Your task to perform on an android device: add a contact in the contacts app Image 0: 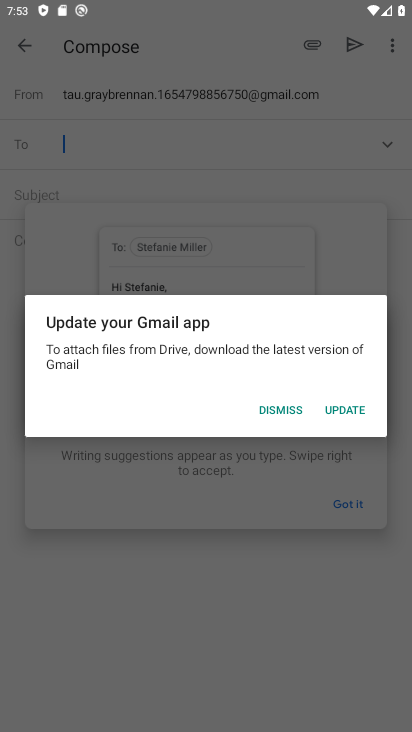
Step 0: click (343, 404)
Your task to perform on an android device: add a contact in the contacts app Image 1: 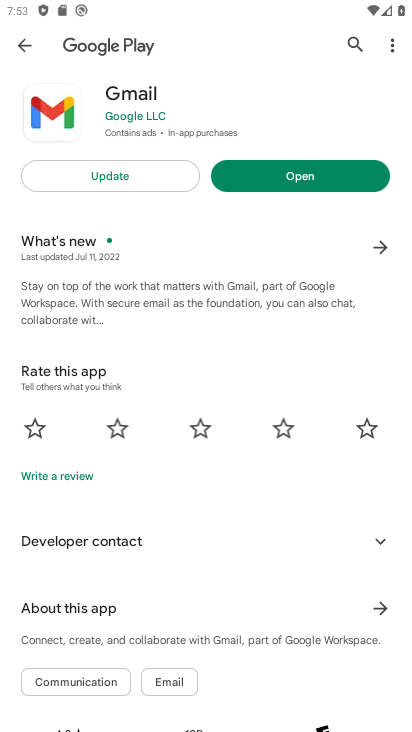
Step 1: click (263, 222)
Your task to perform on an android device: add a contact in the contacts app Image 2: 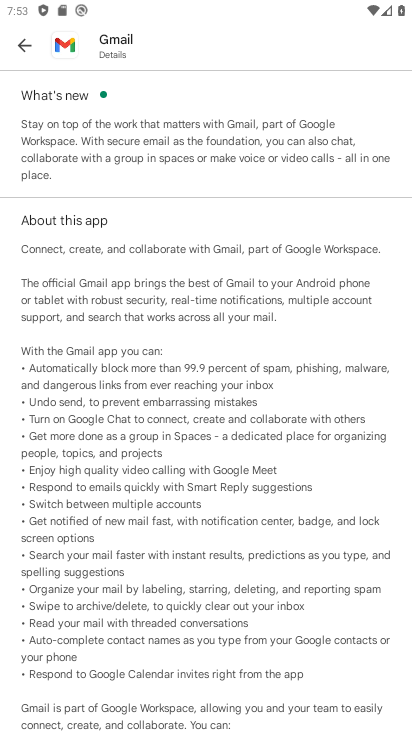
Step 2: press home button
Your task to perform on an android device: add a contact in the contacts app Image 3: 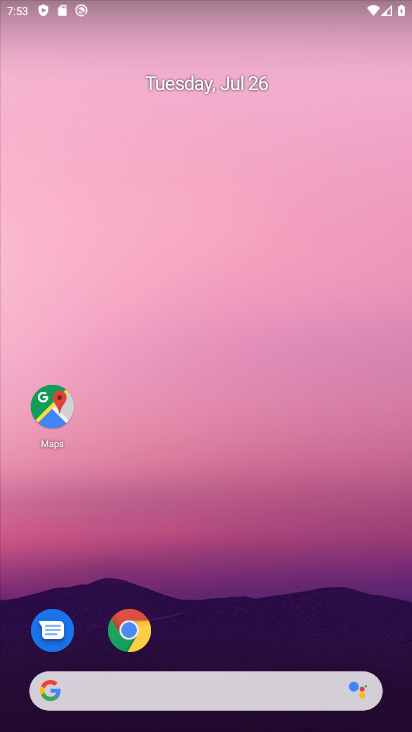
Step 3: drag from (328, 621) to (143, 128)
Your task to perform on an android device: add a contact in the contacts app Image 4: 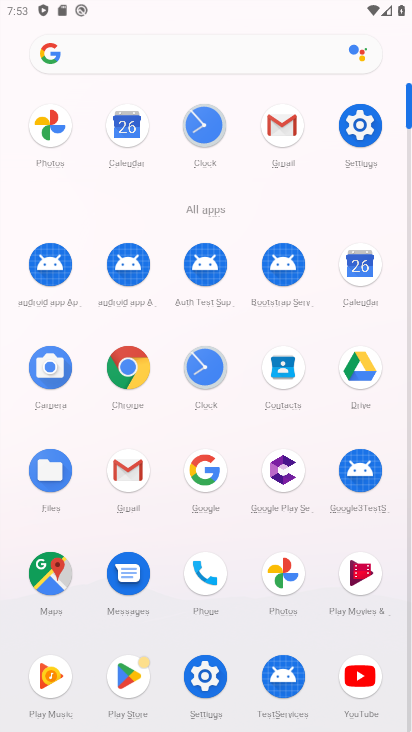
Step 4: click (283, 366)
Your task to perform on an android device: add a contact in the contacts app Image 5: 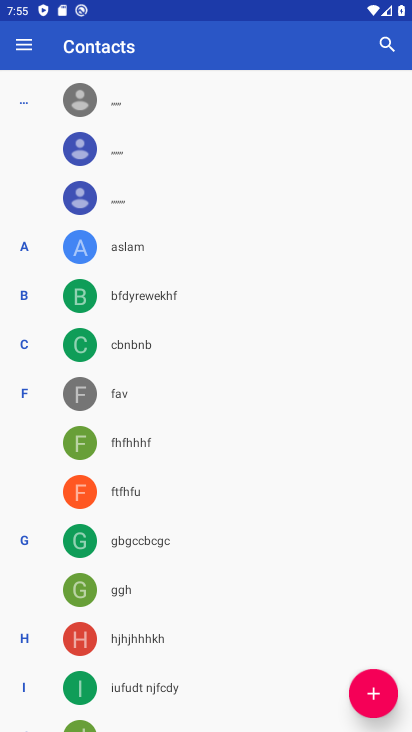
Step 5: click (375, 685)
Your task to perform on an android device: add a contact in the contacts app Image 6: 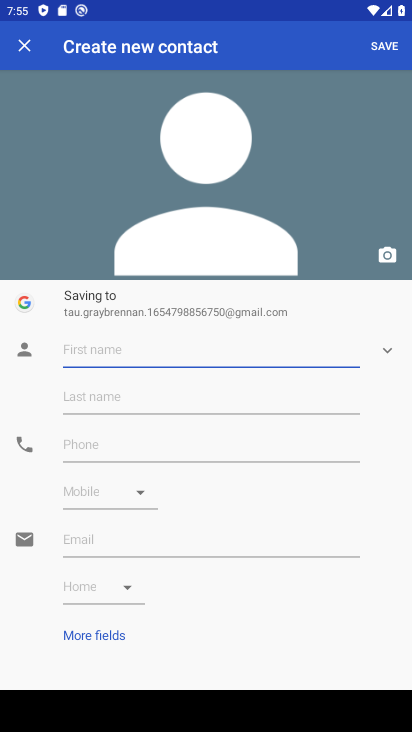
Step 6: type "dfsfds"
Your task to perform on an android device: add a contact in the contacts app Image 7: 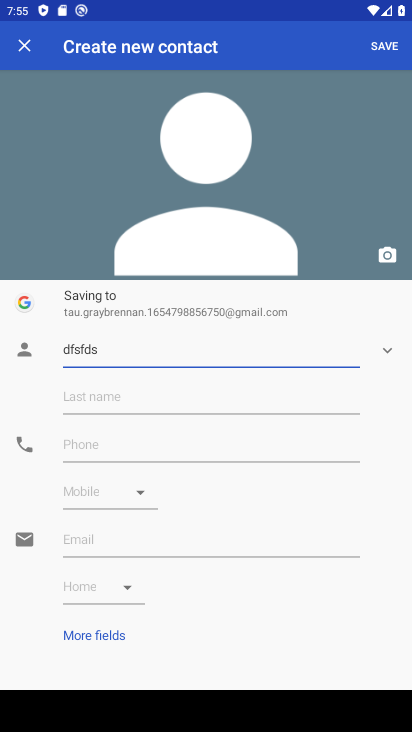
Step 7: click (261, 387)
Your task to perform on an android device: add a contact in the contacts app Image 8: 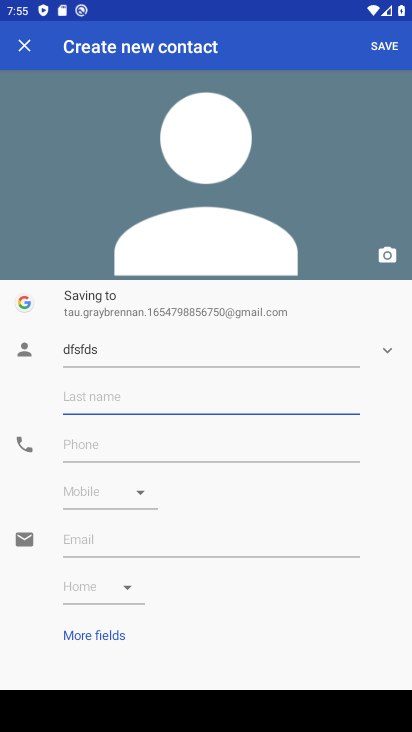
Step 8: type "sdfsdfs"
Your task to perform on an android device: add a contact in the contacts app Image 9: 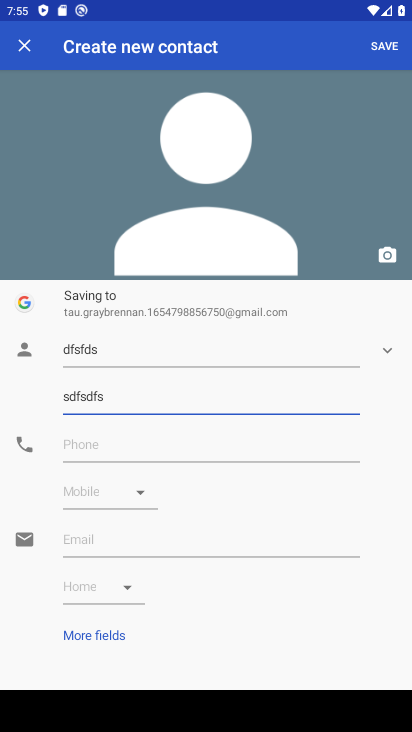
Step 9: click (279, 449)
Your task to perform on an android device: add a contact in the contacts app Image 10: 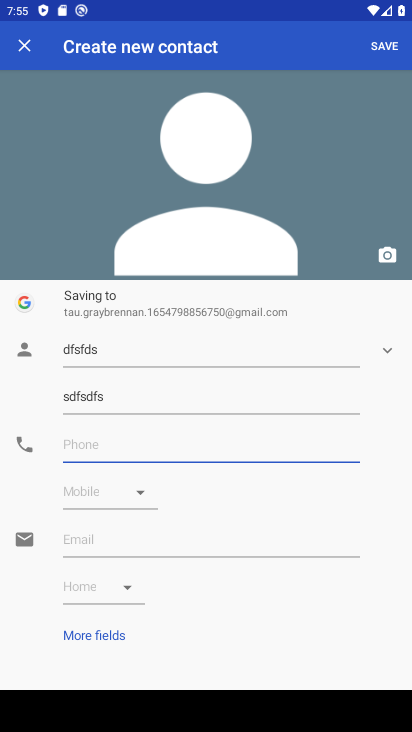
Step 10: type "42454"
Your task to perform on an android device: add a contact in the contacts app Image 11: 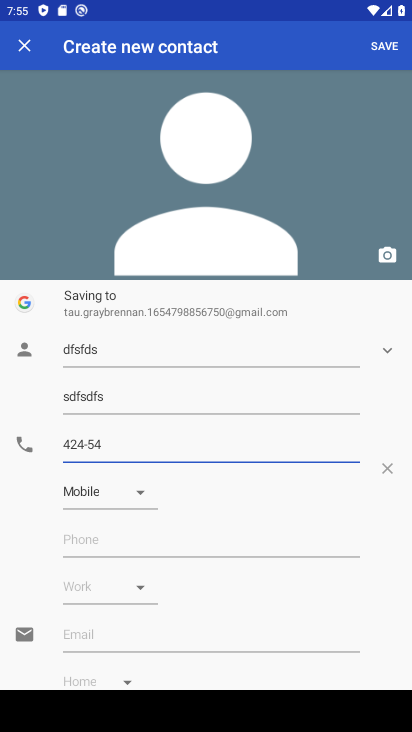
Step 11: click (378, 42)
Your task to perform on an android device: add a contact in the contacts app Image 12: 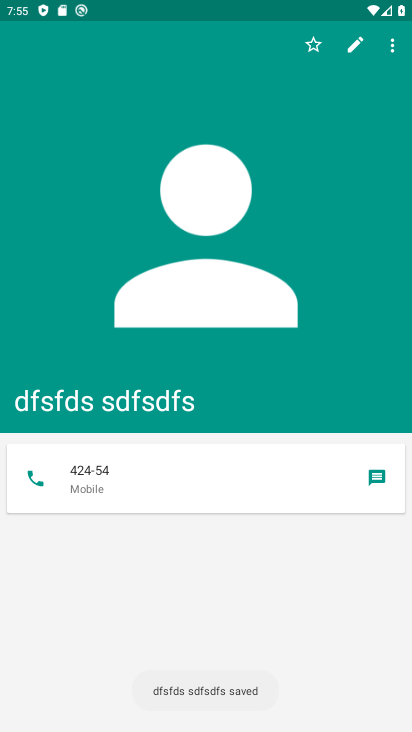
Step 12: task complete